Your task to perform on an android device: install app "Google Play Games" Image 0: 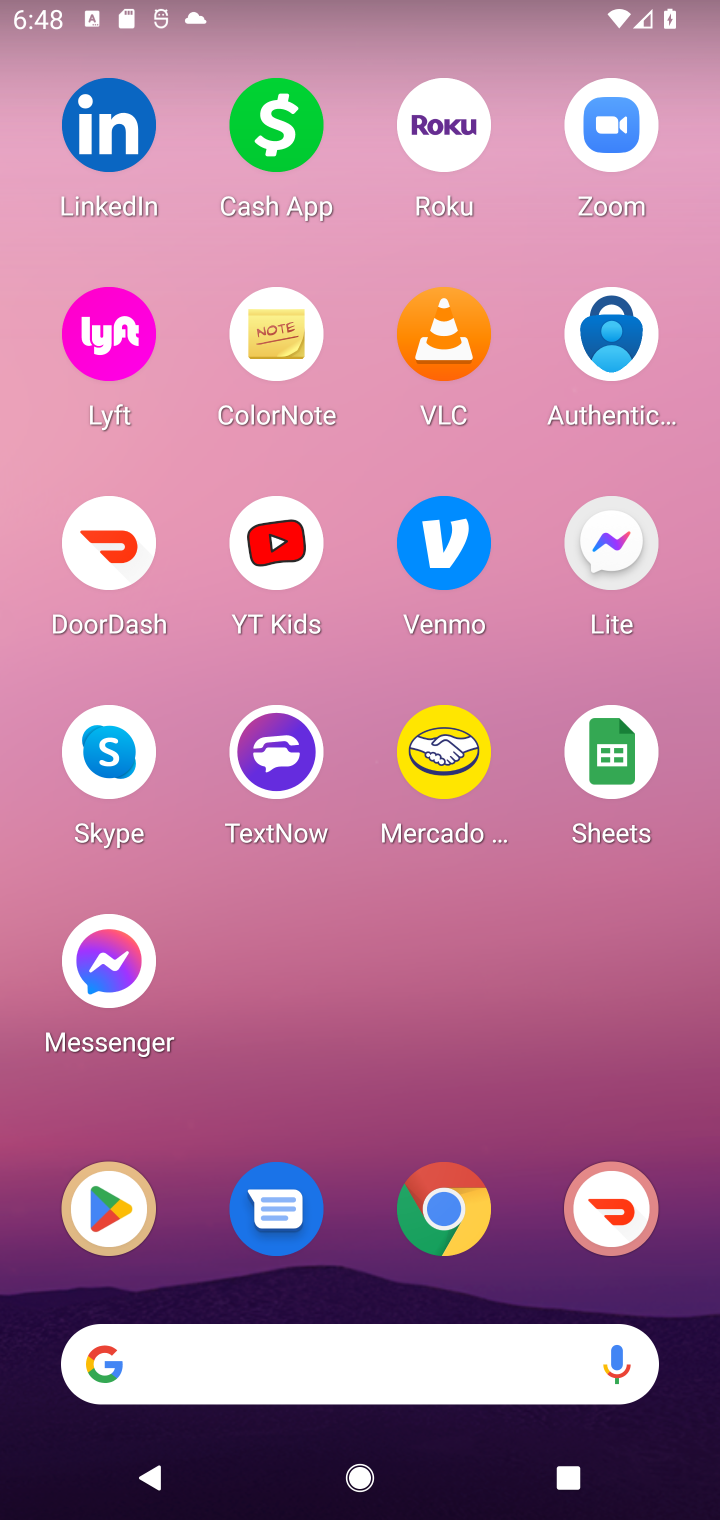
Step 0: click (80, 1206)
Your task to perform on an android device: install app "Google Play Games" Image 1: 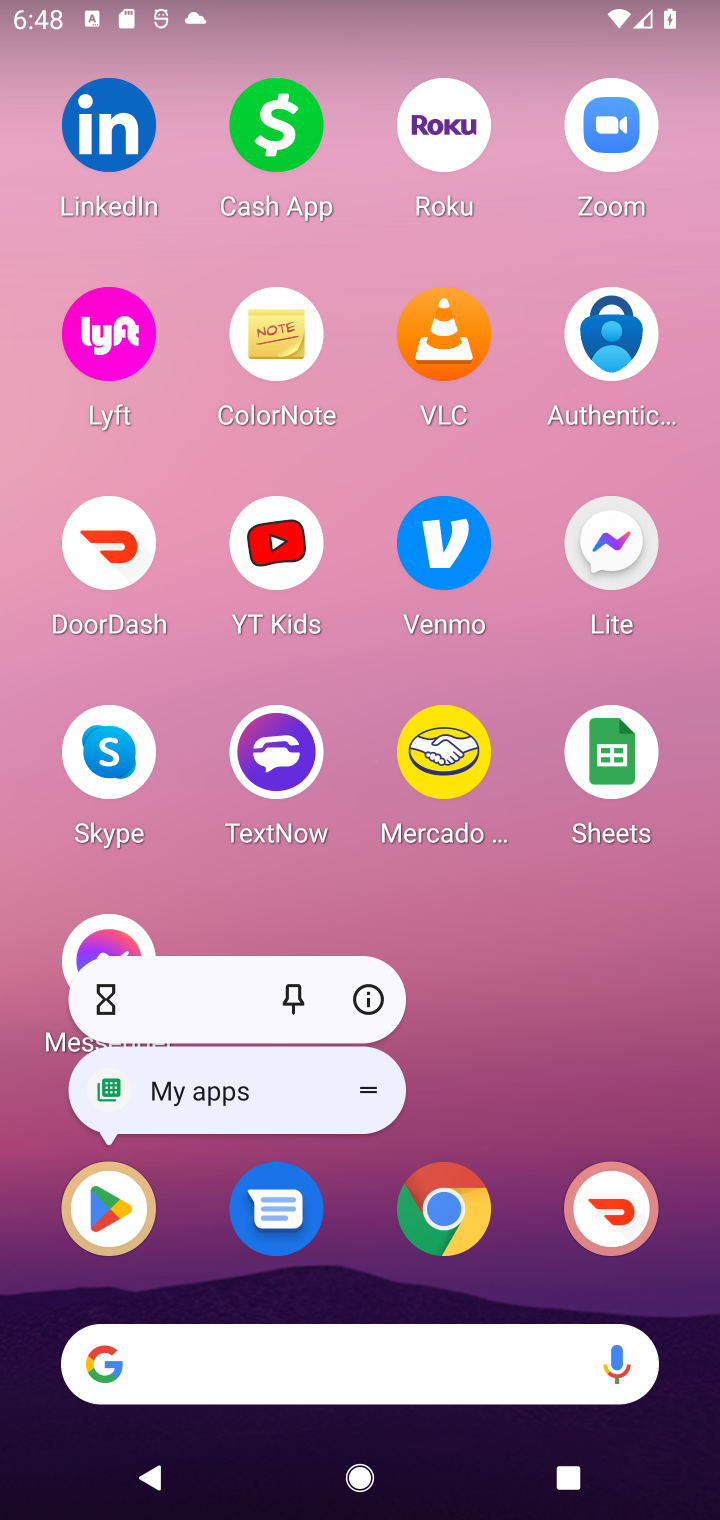
Step 1: click (122, 1226)
Your task to perform on an android device: install app "Google Play Games" Image 2: 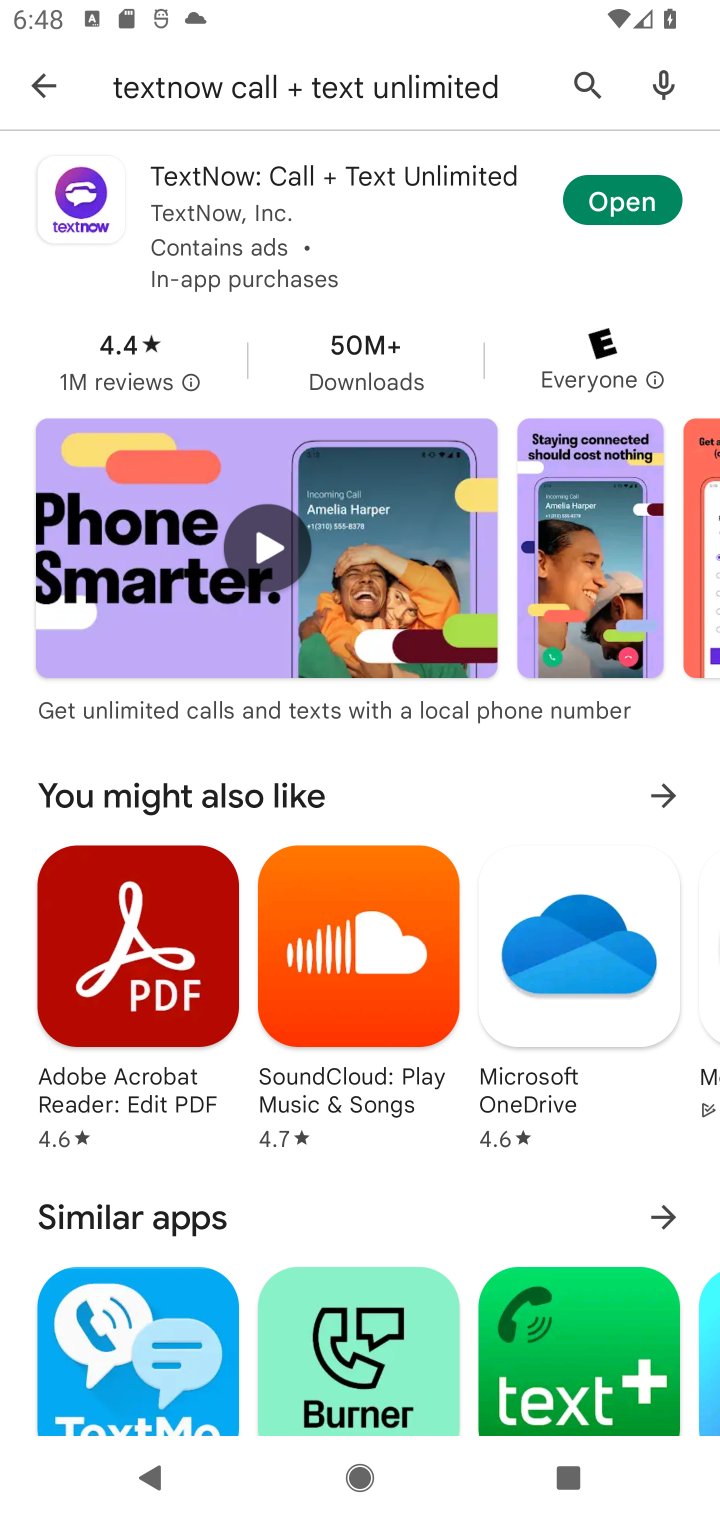
Step 2: click (588, 79)
Your task to perform on an android device: install app "Google Play Games" Image 3: 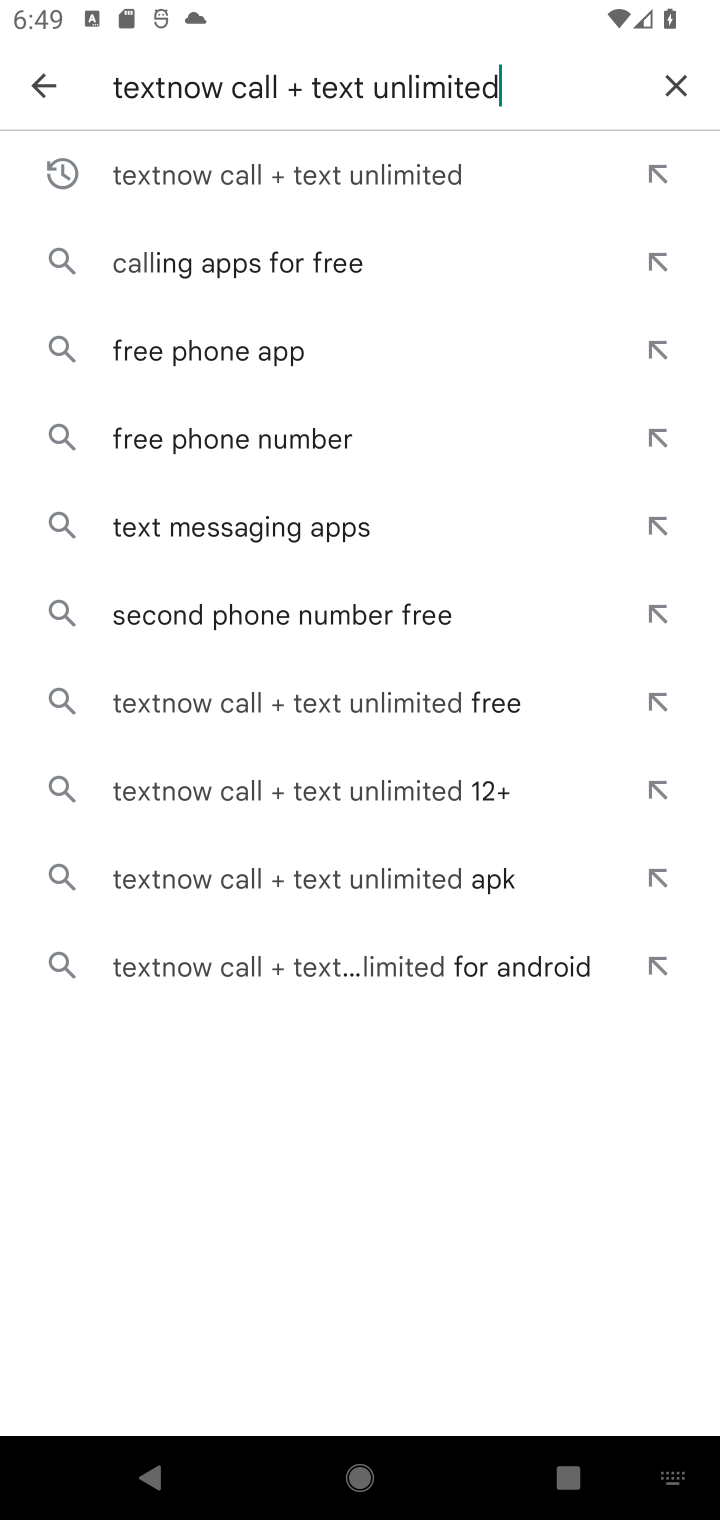
Step 3: click (673, 85)
Your task to perform on an android device: install app "Google Play Games" Image 4: 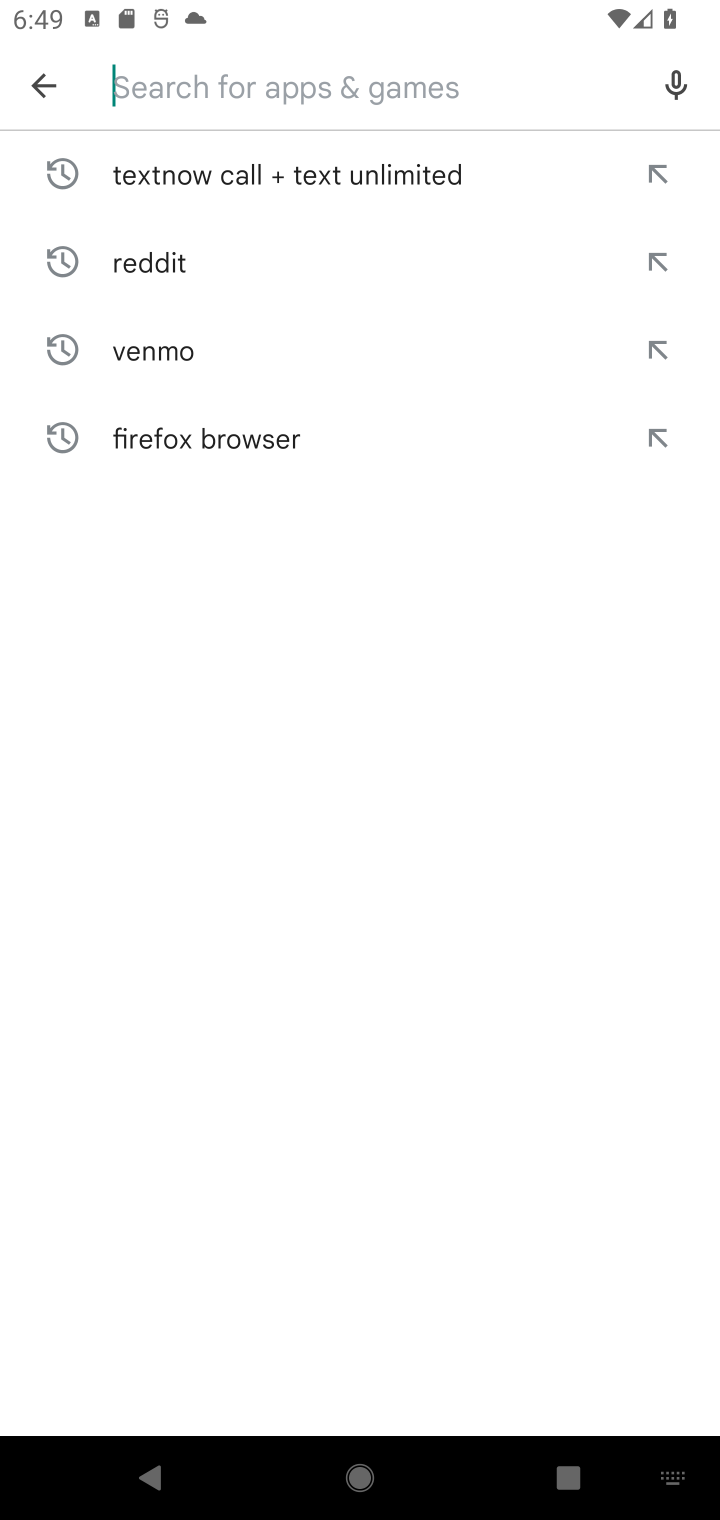
Step 4: type "Google Play Games"
Your task to perform on an android device: install app "Google Play Games" Image 5: 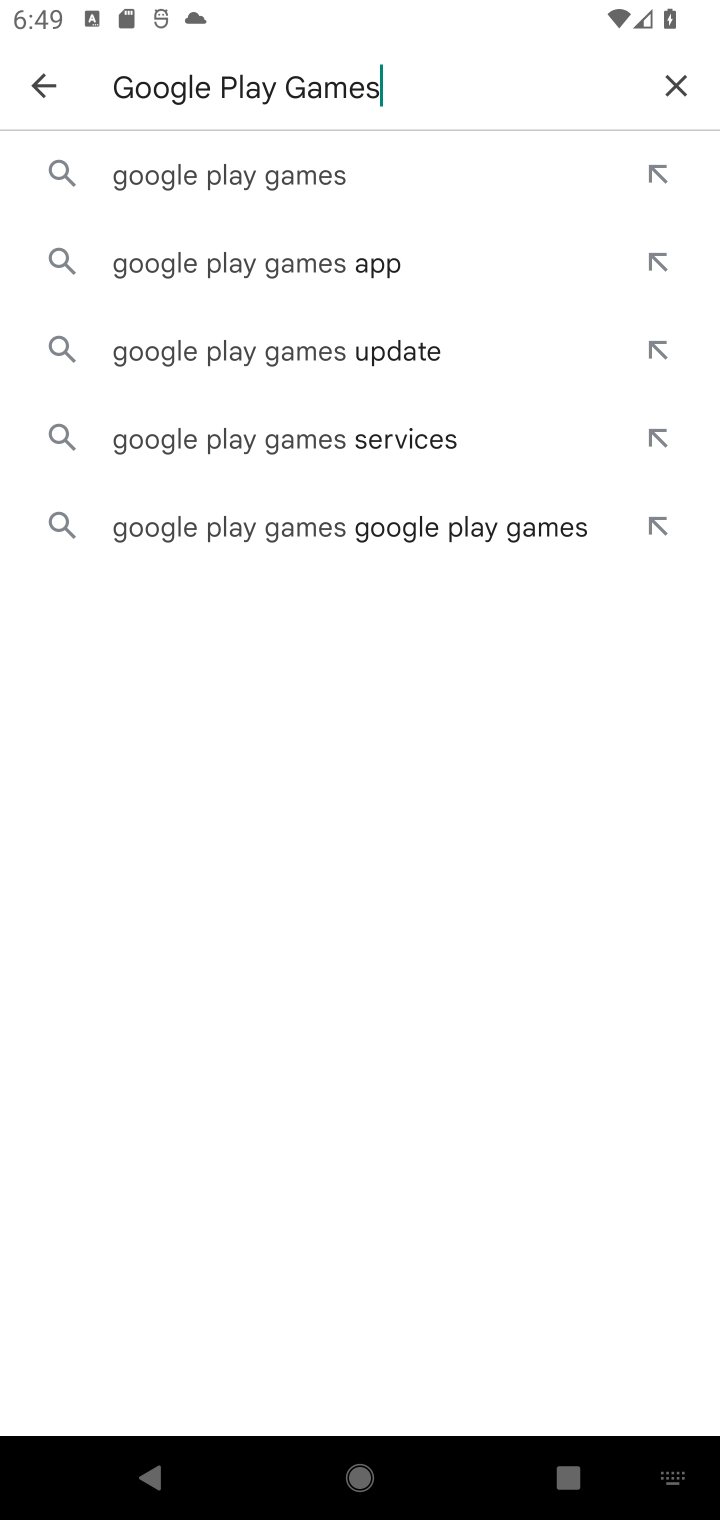
Step 5: click (269, 189)
Your task to perform on an android device: install app "Google Play Games" Image 6: 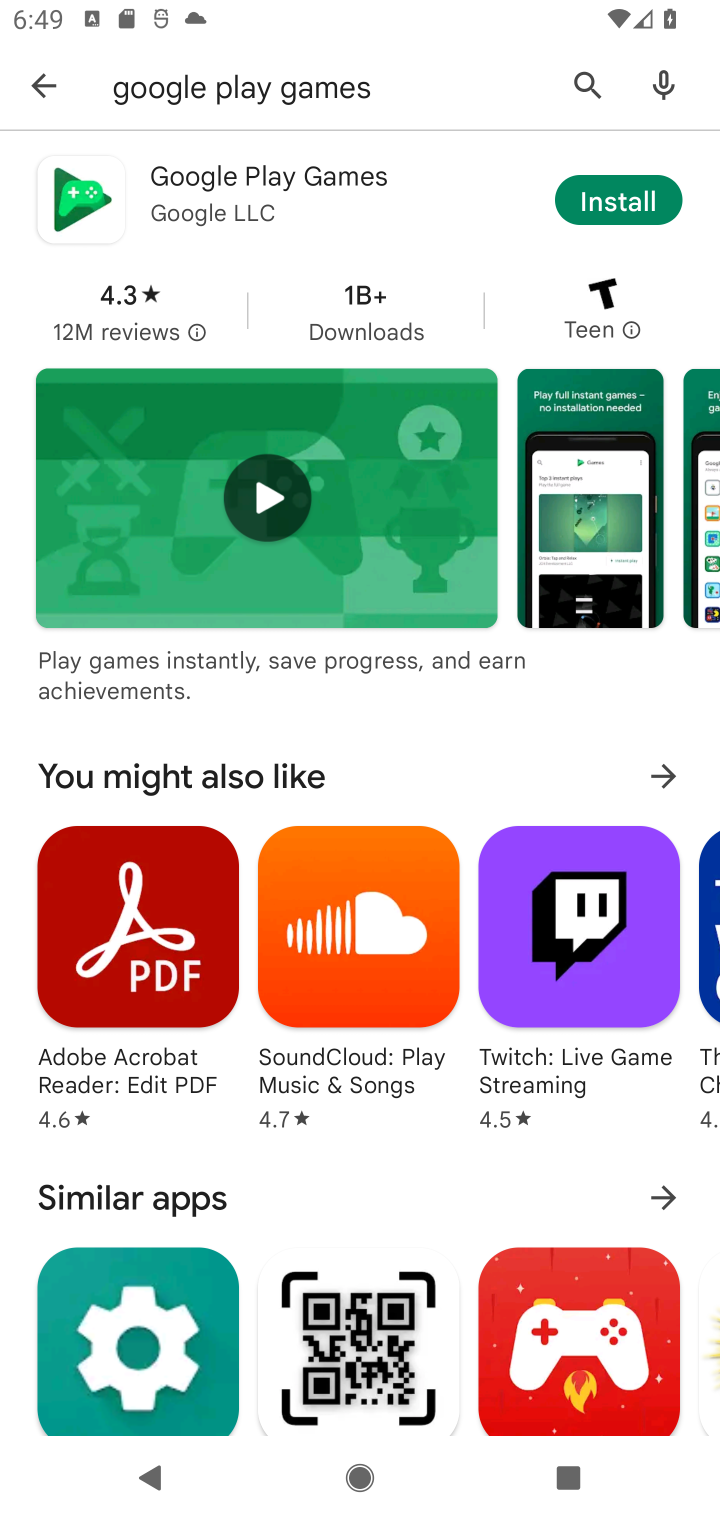
Step 6: click (632, 202)
Your task to perform on an android device: install app "Google Play Games" Image 7: 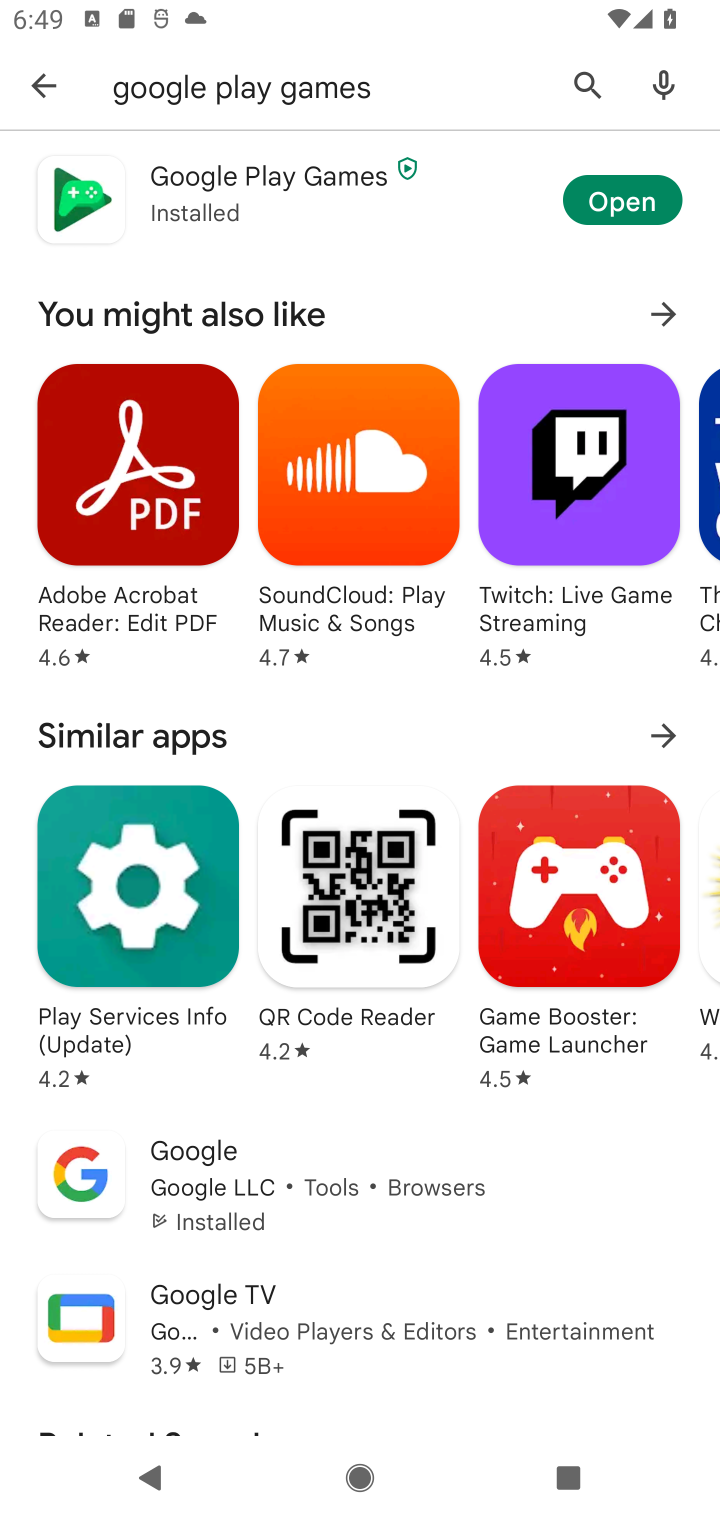
Step 7: task complete